Your task to perform on an android device: delete browsing data in the chrome app Image 0: 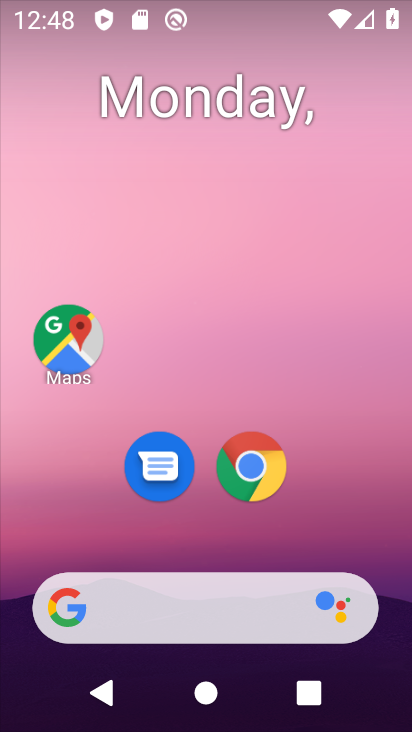
Step 0: click (273, 469)
Your task to perform on an android device: delete browsing data in the chrome app Image 1: 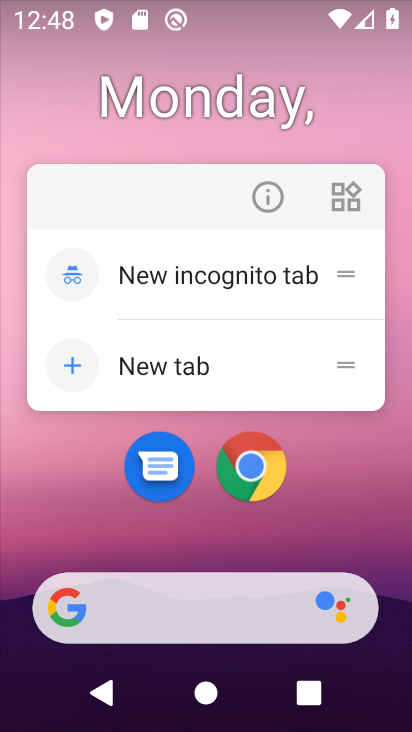
Step 1: click (268, 451)
Your task to perform on an android device: delete browsing data in the chrome app Image 2: 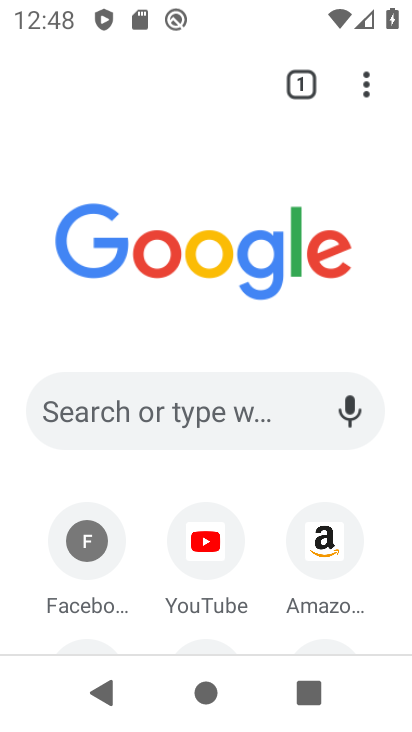
Step 2: click (357, 66)
Your task to perform on an android device: delete browsing data in the chrome app Image 3: 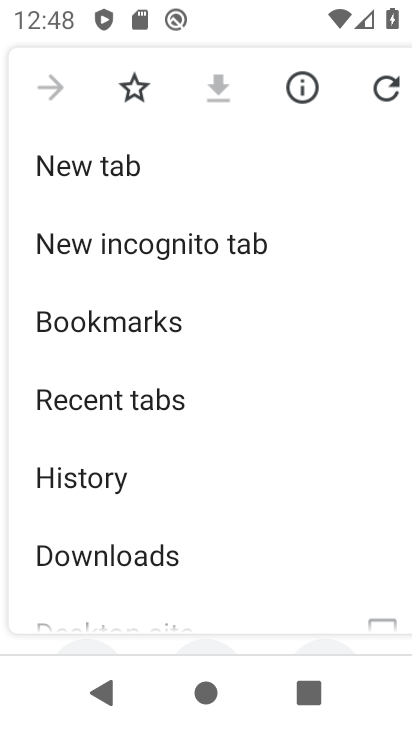
Step 3: drag from (134, 543) to (151, 332)
Your task to perform on an android device: delete browsing data in the chrome app Image 4: 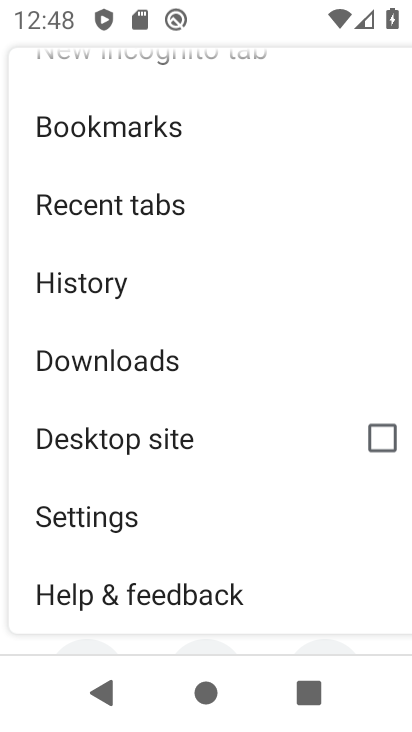
Step 4: click (94, 286)
Your task to perform on an android device: delete browsing data in the chrome app Image 5: 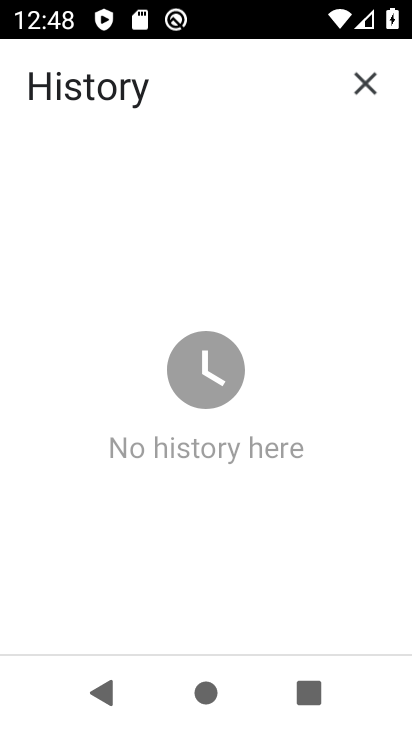
Step 5: task complete